Your task to perform on an android device: turn off smart reply in the gmail app Image 0: 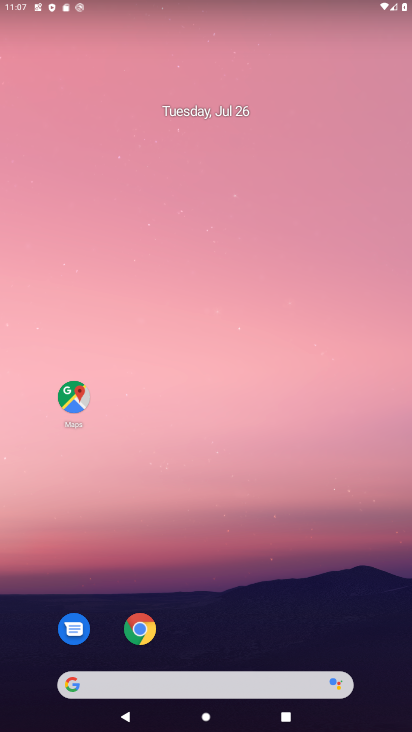
Step 0: drag from (290, 652) to (241, 84)
Your task to perform on an android device: turn off smart reply in the gmail app Image 1: 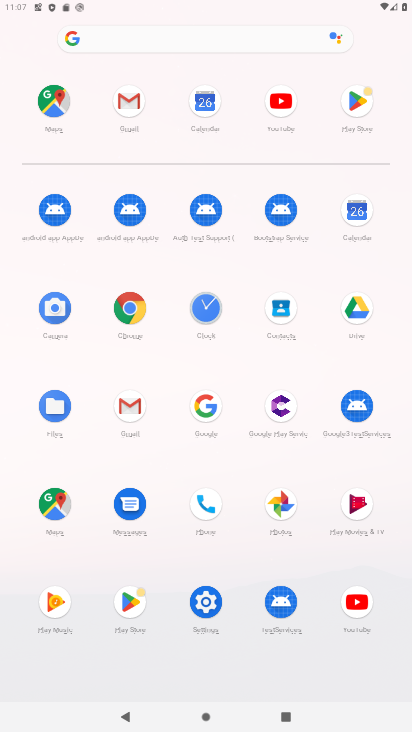
Step 1: click (143, 418)
Your task to perform on an android device: turn off smart reply in the gmail app Image 2: 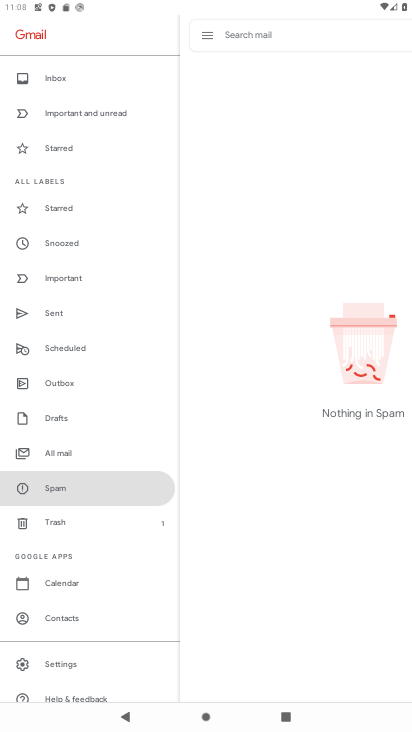
Step 2: click (74, 667)
Your task to perform on an android device: turn off smart reply in the gmail app Image 3: 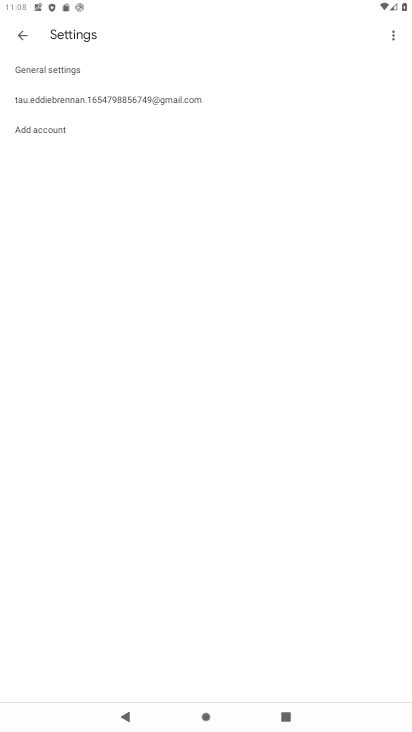
Step 3: click (133, 96)
Your task to perform on an android device: turn off smart reply in the gmail app Image 4: 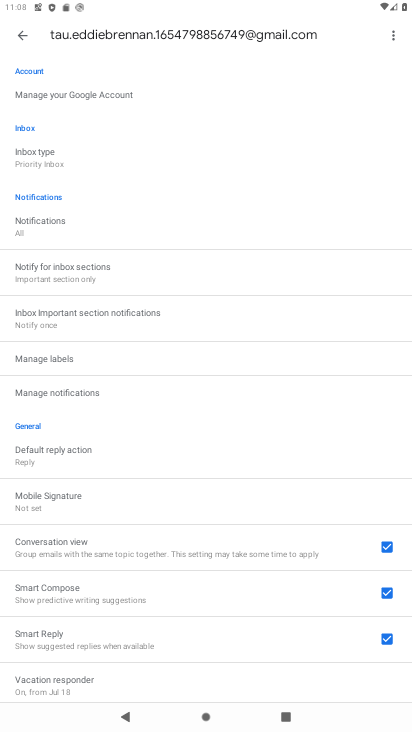
Step 4: click (392, 635)
Your task to perform on an android device: turn off smart reply in the gmail app Image 5: 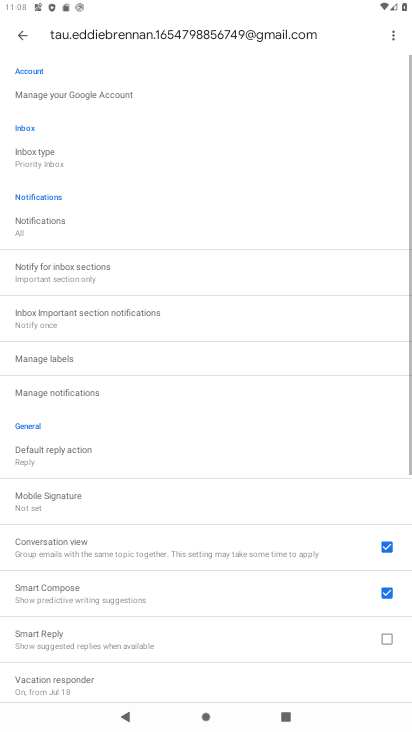
Step 5: task complete